Your task to perform on an android device: Open the calendar and show me this week's events? Image 0: 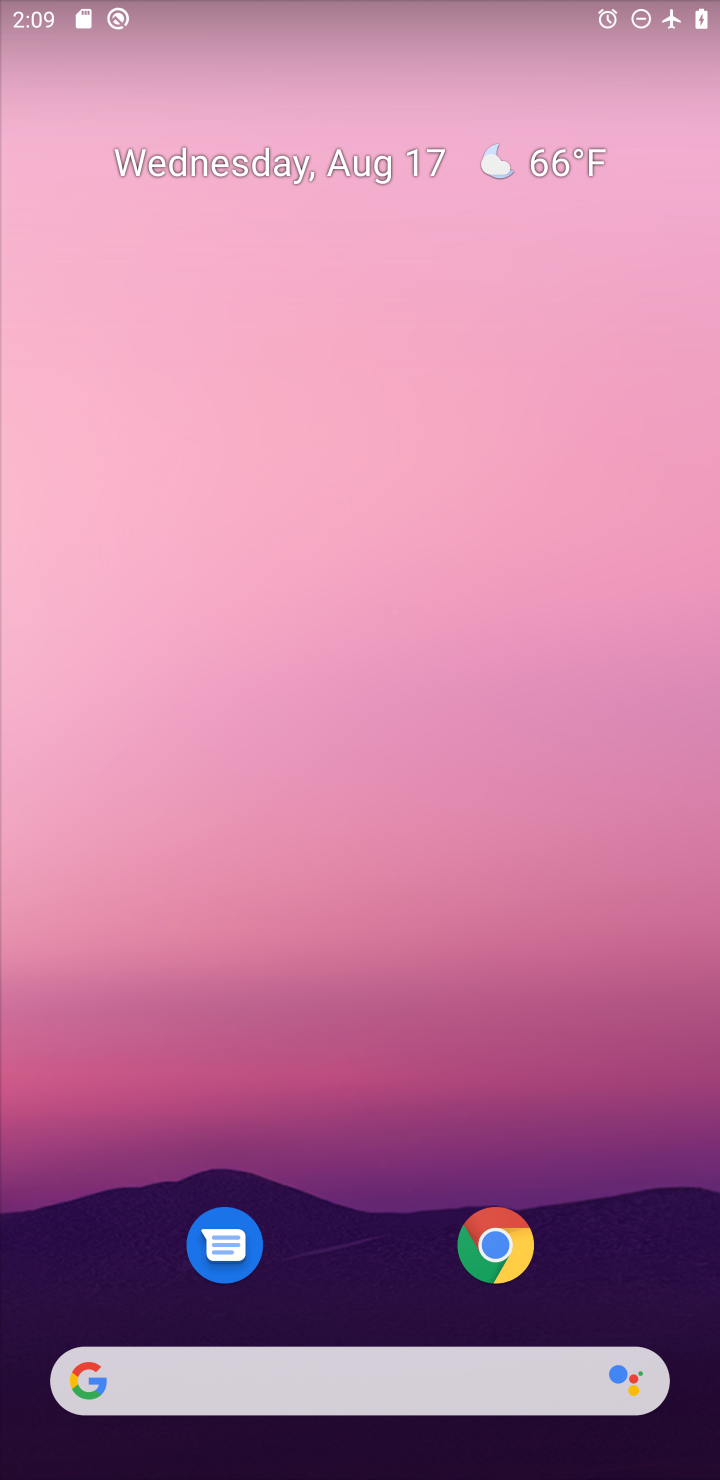
Step 0: drag from (391, 1295) to (367, 33)
Your task to perform on an android device: Open the calendar and show me this week's events? Image 1: 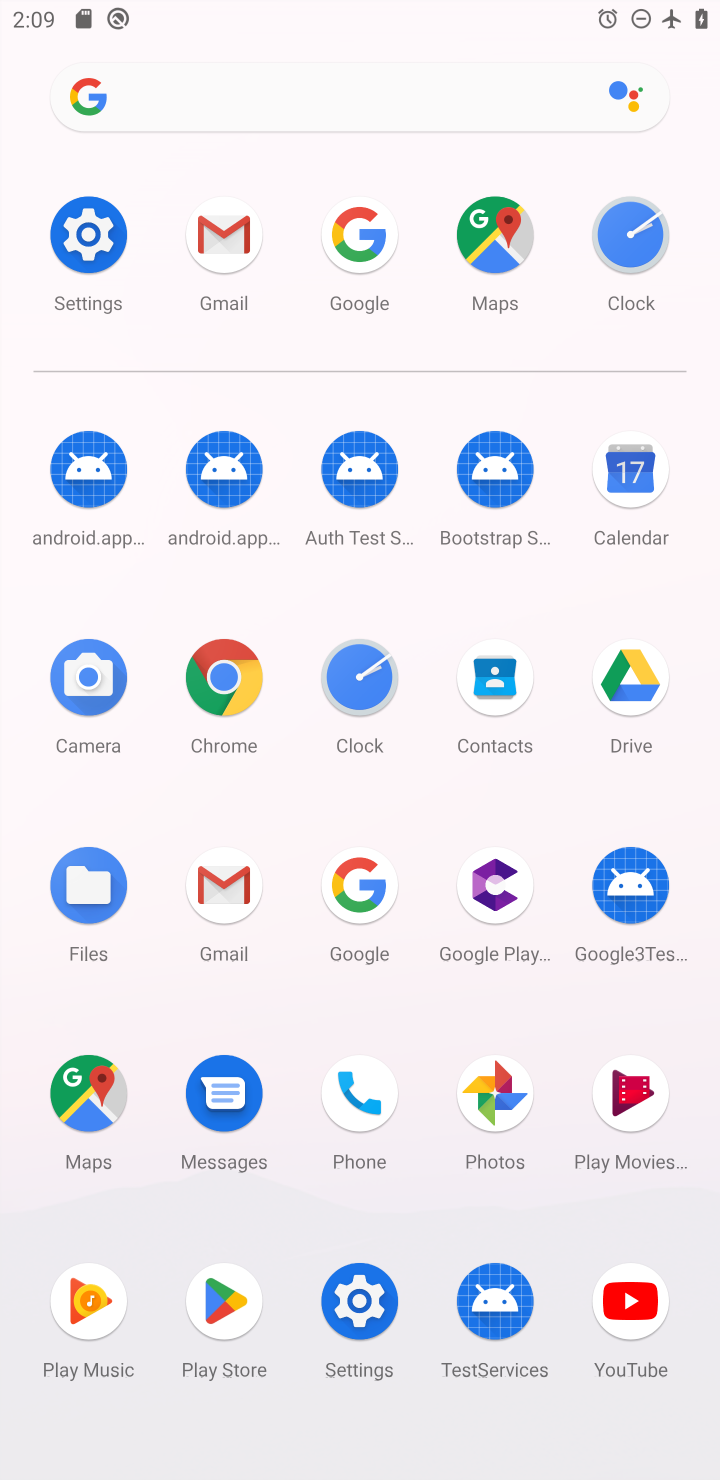
Step 1: click (632, 465)
Your task to perform on an android device: Open the calendar and show me this week's events? Image 2: 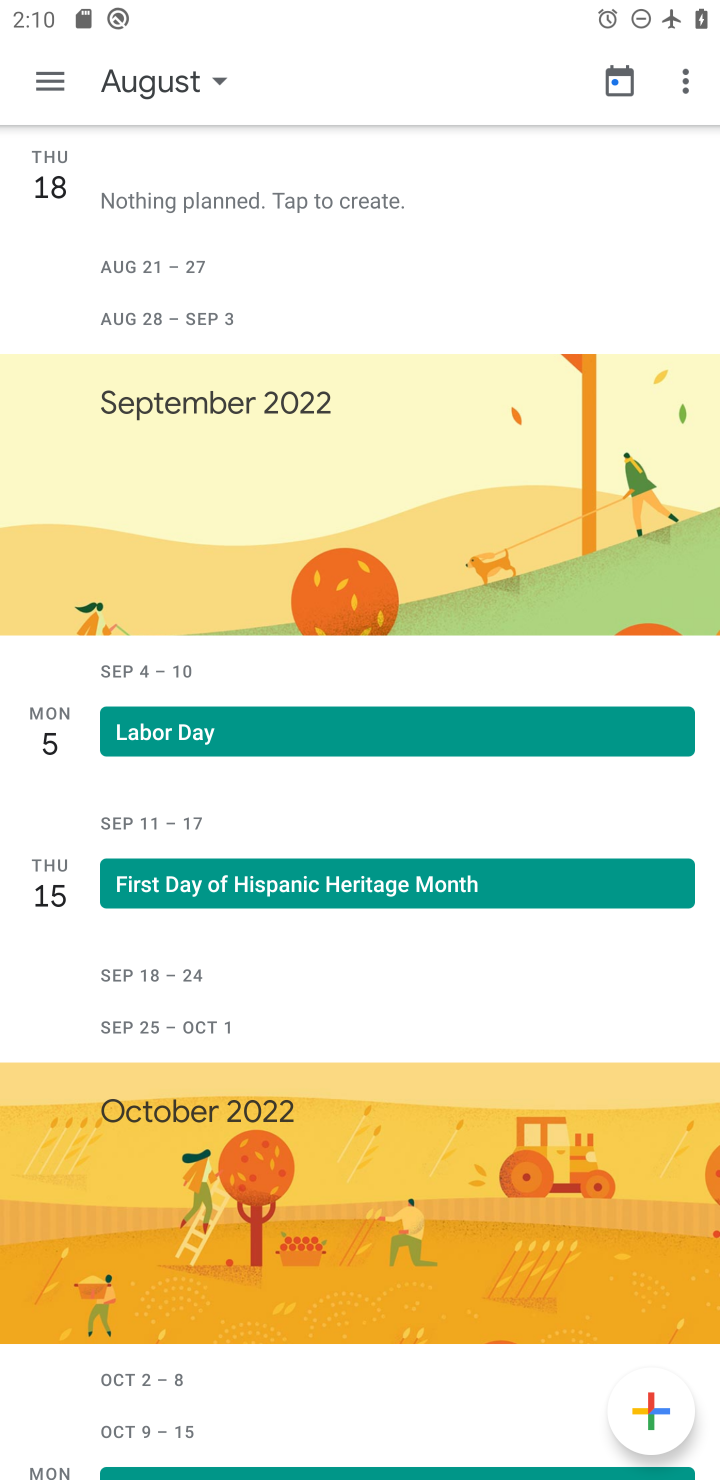
Step 2: click (218, 74)
Your task to perform on an android device: Open the calendar and show me this week's events? Image 3: 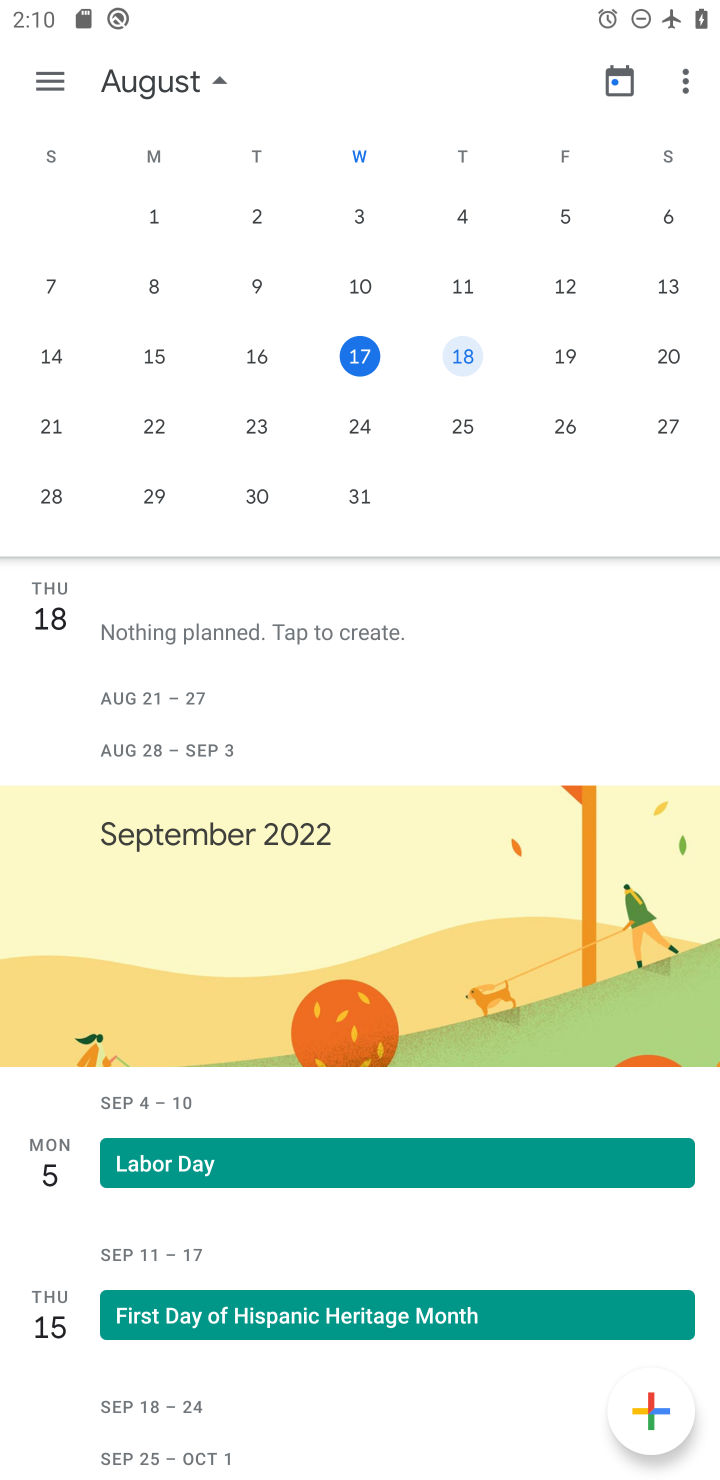
Step 3: click (40, 87)
Your task to perform on an android device: Open the calendar and show me this week's events? Image 4: 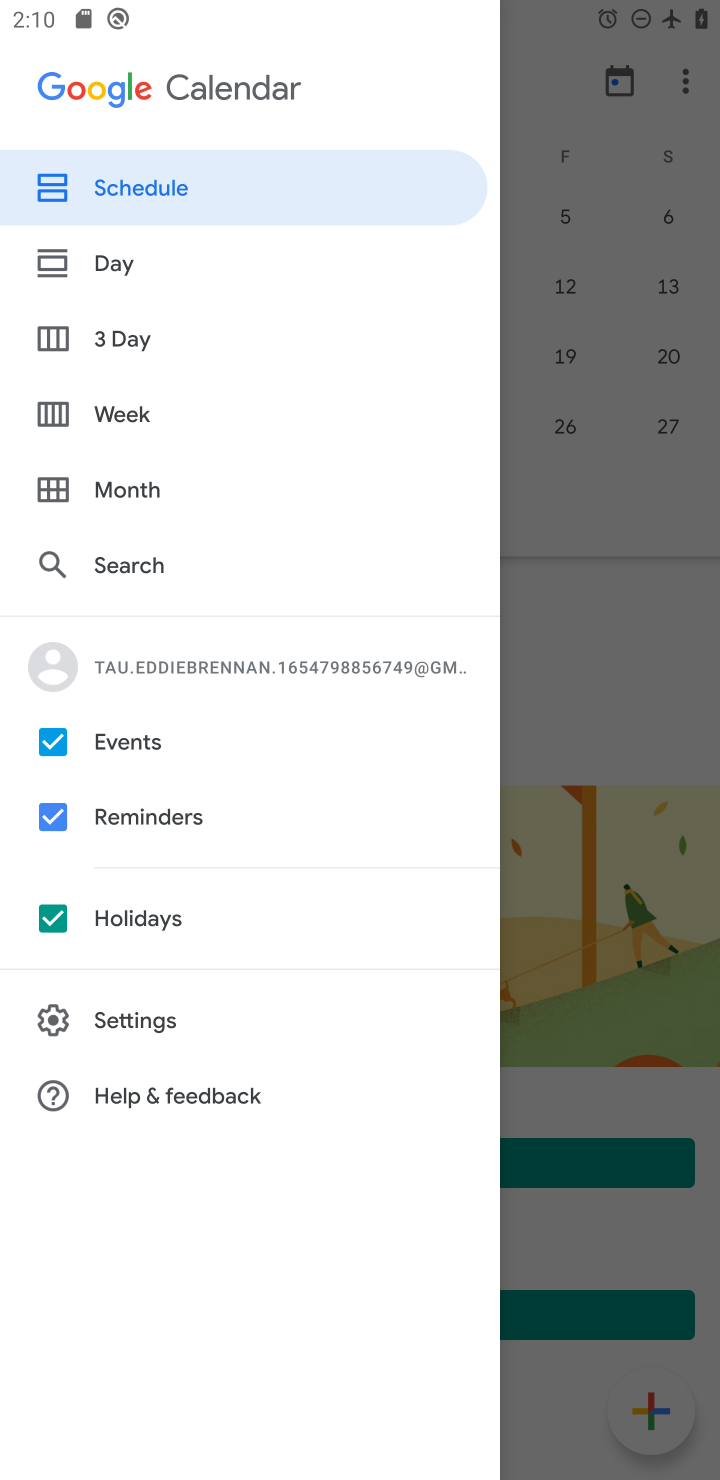
Step 4: click (47, 906)
Your task to perform on an android device: Open the calendar and show me this week's events? Image 5: 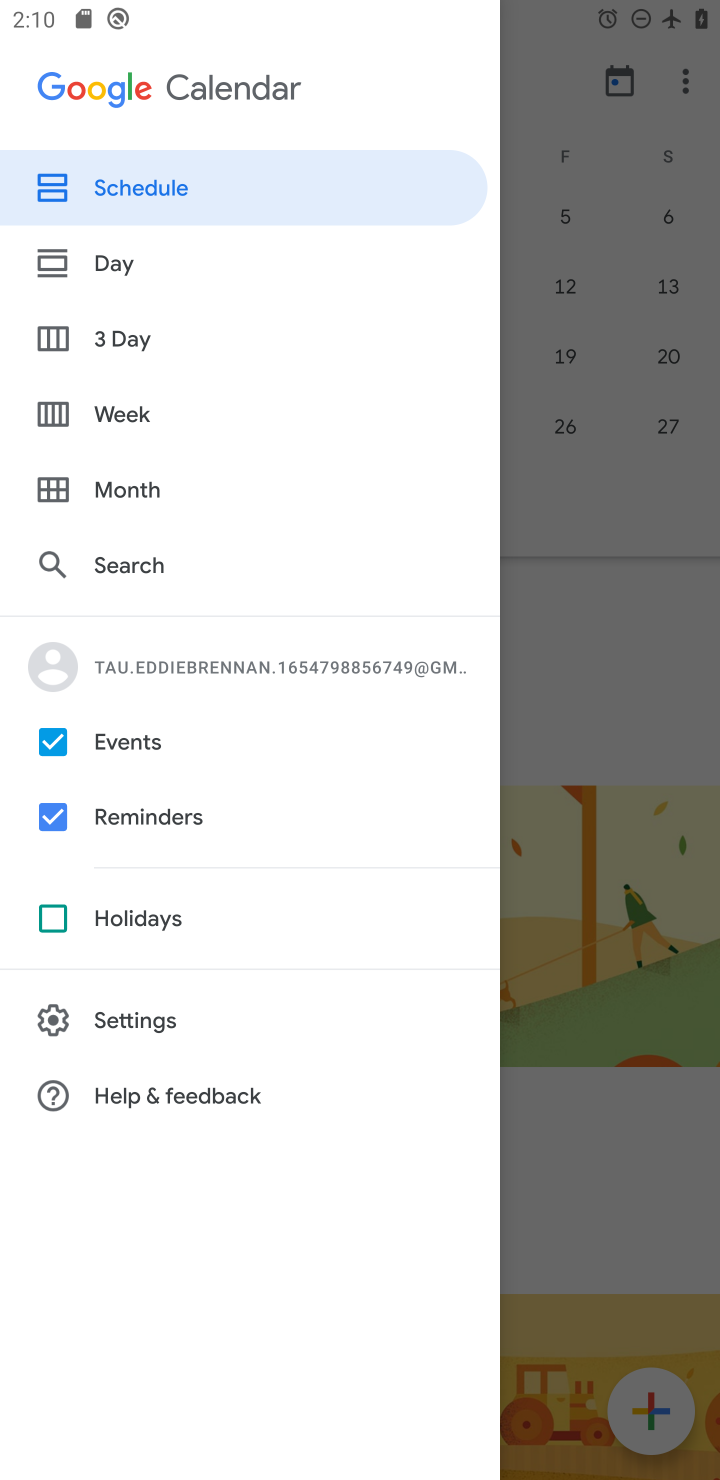
Step 5: click (45, 822)
Your task to perform on an android device: Open the calendar and show me this week's events? Image 6: 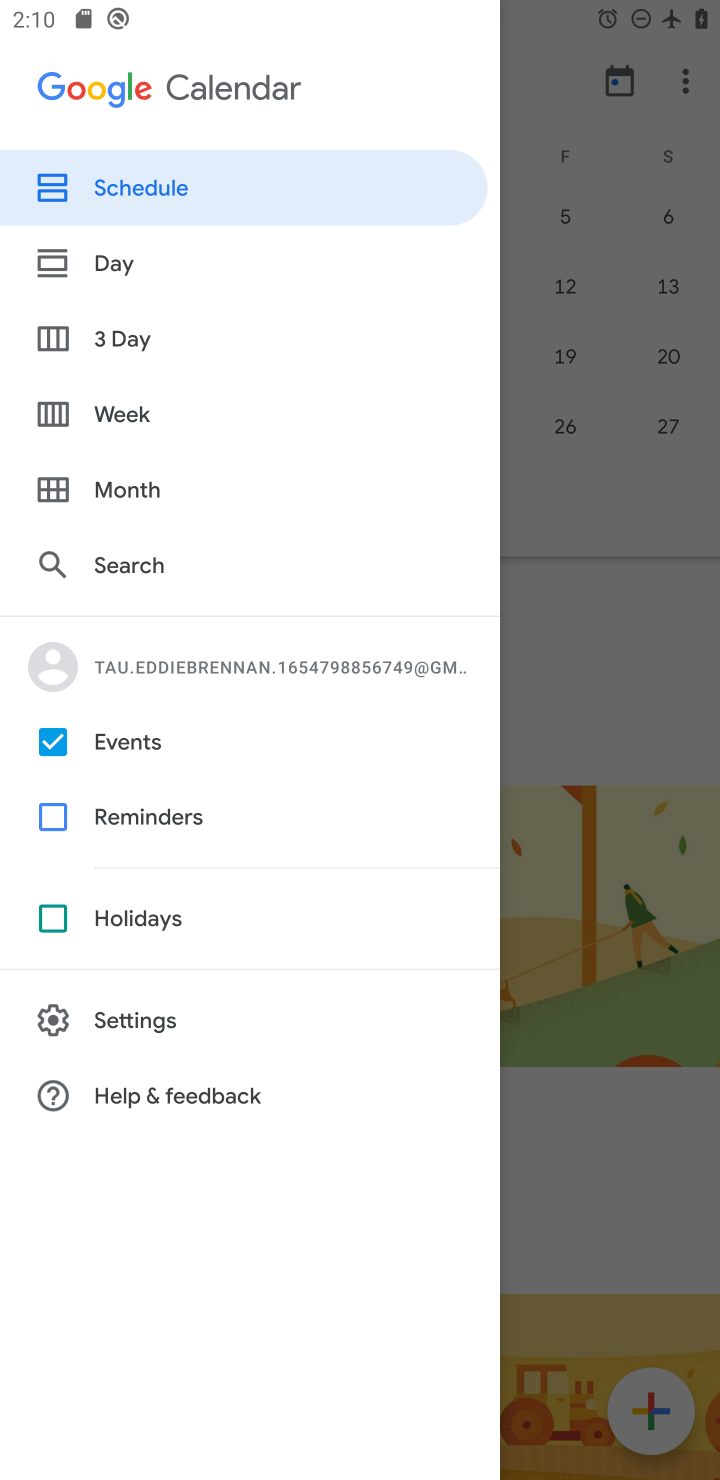
Step 6: click (137, 413)
Your task to perform on an android device: Open the calendar and show me this week's events? Image 7: 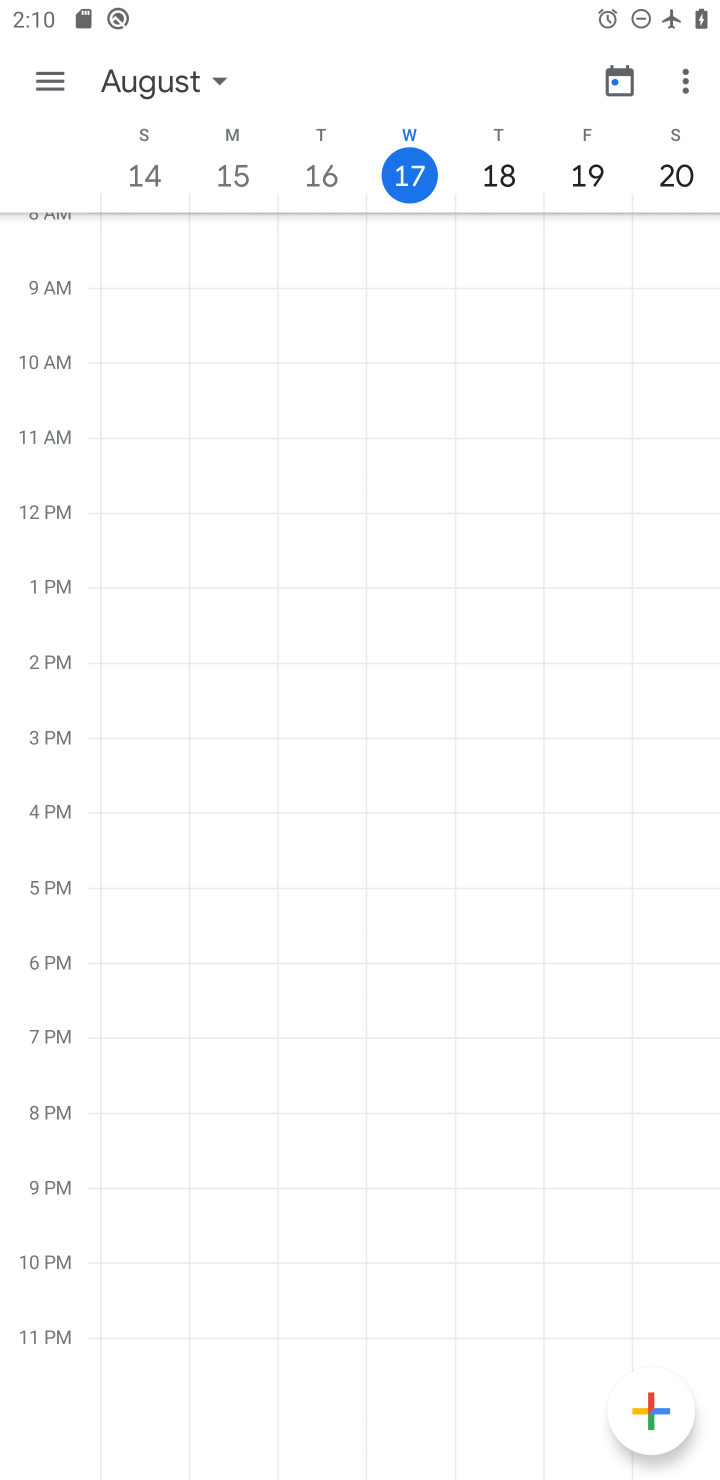
Step 7: task complete